Your task to perform on an android device: toggle pop-ups in chrome Image 0: 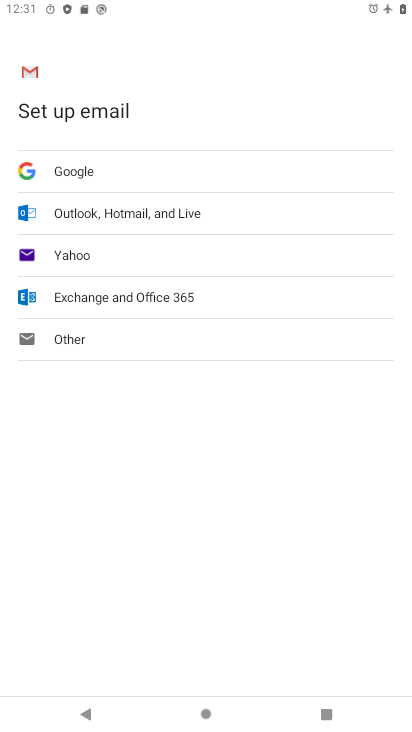
Step 0: press back button
Your task to perform on an android device: toggle pop-ups in chrome Image 1: 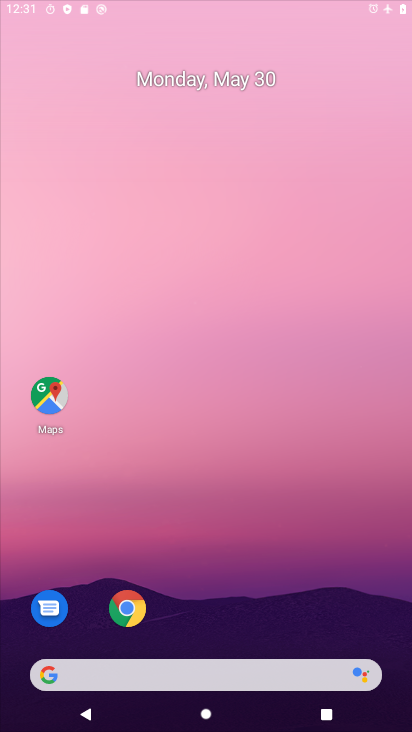
Step 1: press home button
Your task to perform on an android device: toggle pop-ups in chrome Image 2: 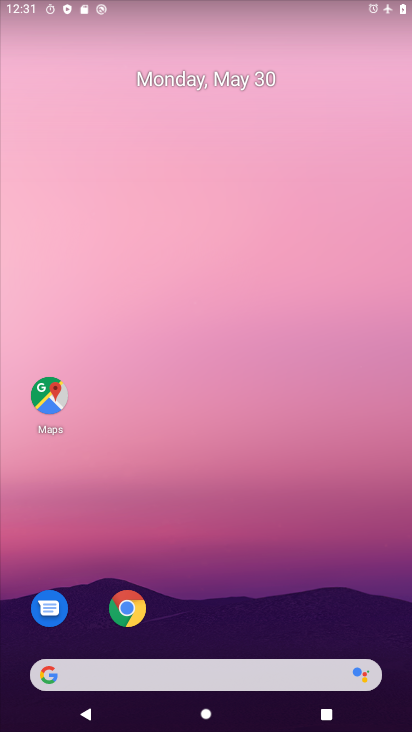
Step 2: click (139, 604)
Your task to perform on an android device: toggle pop-ups in chrome Image 3: 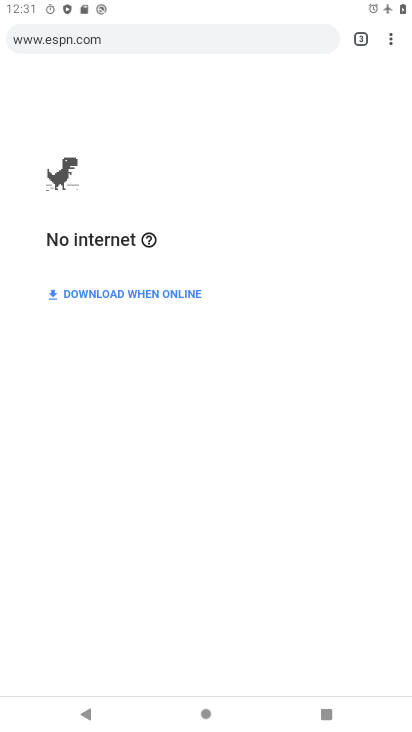
Step 3: click (387, 32)
Your task to perform on an android device: toggle pop-ups in chrome Image 4: 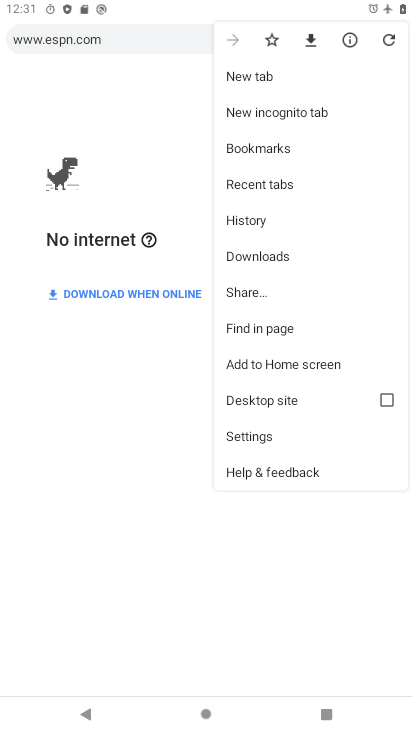
Step 4: click (263, 439)
Your task to perform on an android device: toggle pop-ups in chrome Image 5: 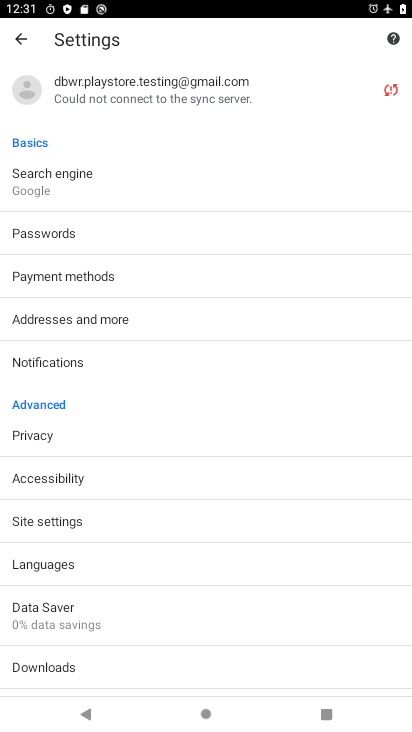
Step 5: click (29, 521)
Your task to perform on an android device: toggle pop-ups in chrome Image 6: 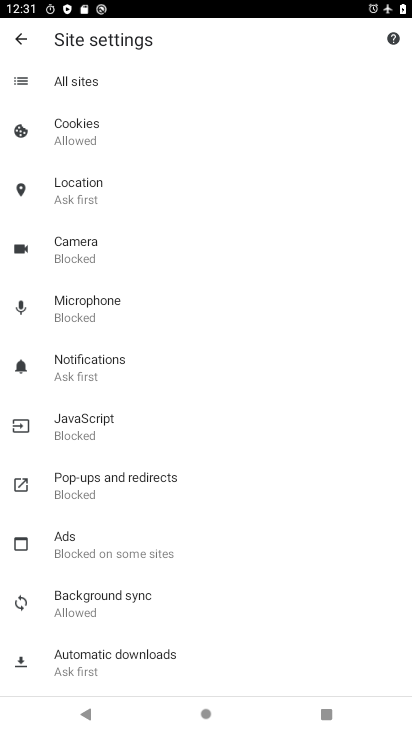
Step 6: click (91, 490)
Your task to perform on an android device: toggle pop-ups in chrome Image 7: 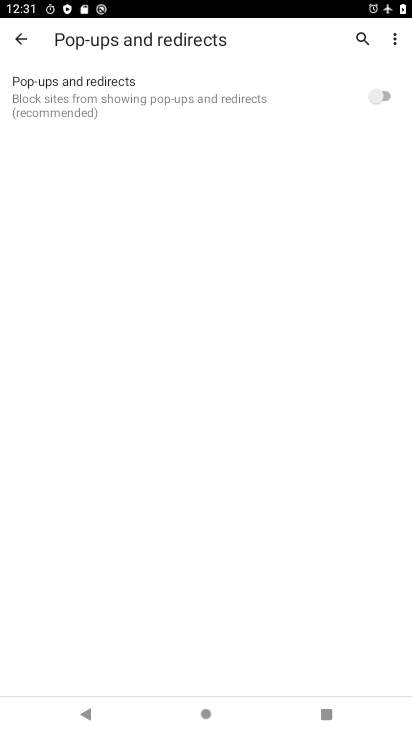
Step 7: click (378, 93)
Your task to perform on an android device: toggle pop-ups in chrome Image 8: 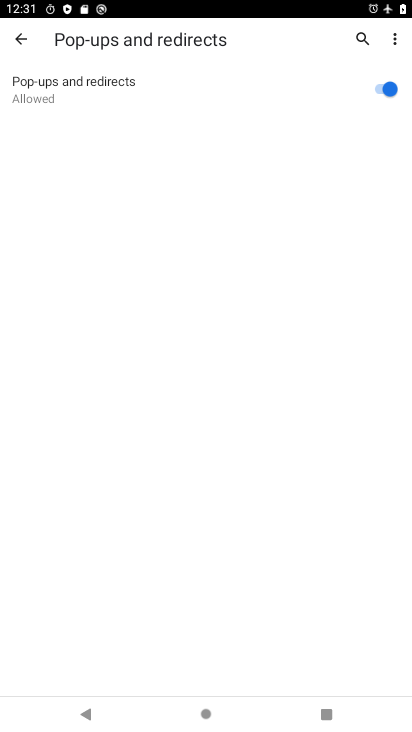
Step 8: task complete